Your task to perform on an android device: see tabs open on other devices in the chrome app Image 0: 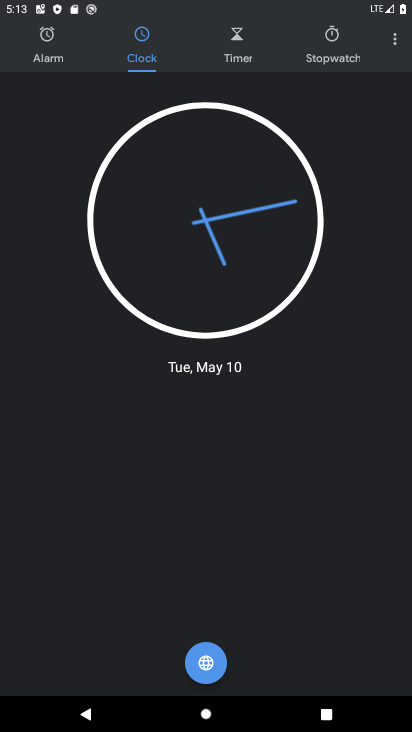
Step 0: press back button
Your task to perform on an android device: see tabs open on other devices in the chrome app Image 1: 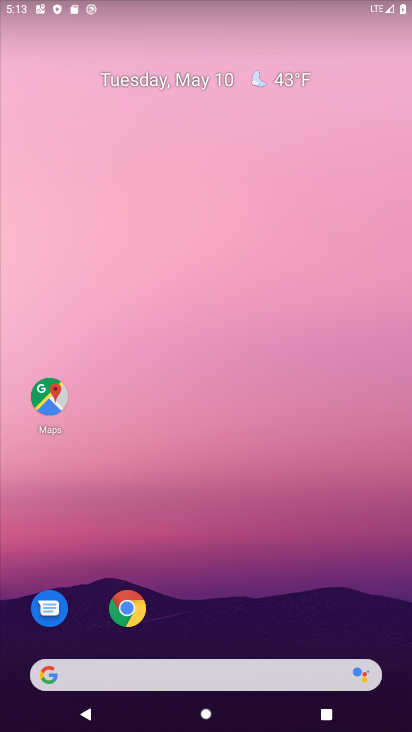
Step 1: click (132, 604)
Your task to perform on an android device: see tabs open on other devices in the chrome app Image 2: 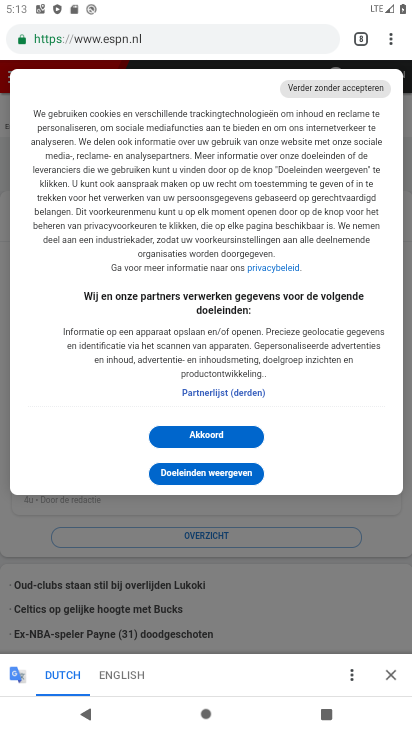
Step 2: task complete